Your task to perform on an android device: Open Chrome and go to the settings page Image 0: 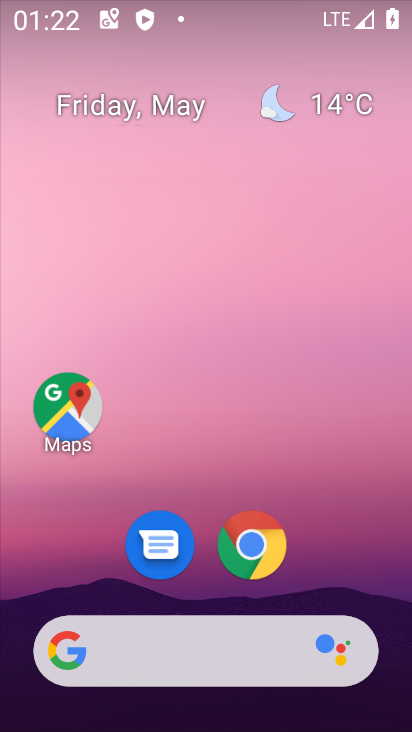
Step 0: click (240, 546)
Your task to perform on an android device: Open Chrome and go to the settings page Image 1: 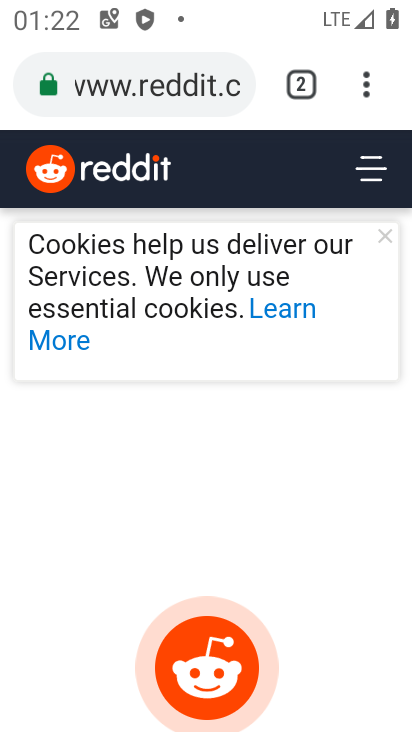
Step 1: click (364, 85)
Your task to perform on an android device: Open Chrome and go to the settings page Image 2: 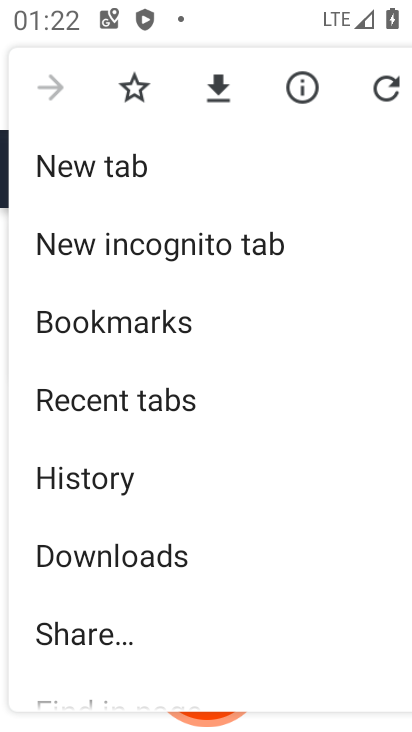
Step 2: drag from (173, 560) to (115, 185)
Your task to perform on an android device: Open Chrome and go to the settings page Image 3: 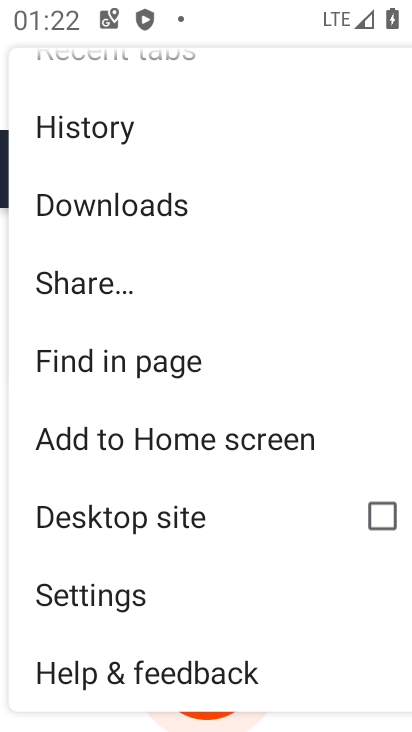
Step 3: click (96, 592)
Your task to perform on an android device: Open Chrome and go to the settings page Image 4: 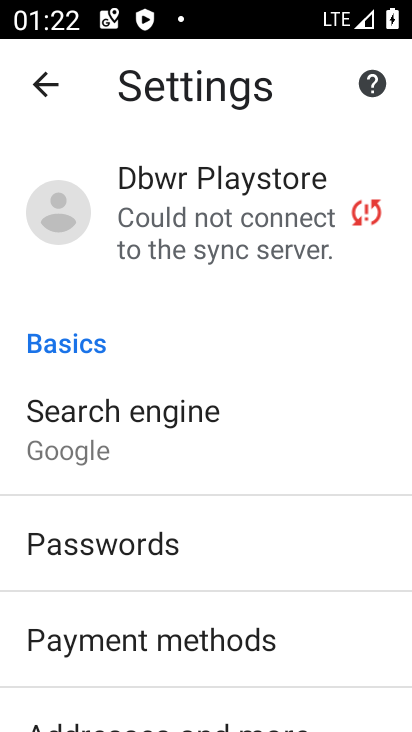
Step 4: task complete